Your task to perform on an android device: Google the capital of Ecuador Image 0: 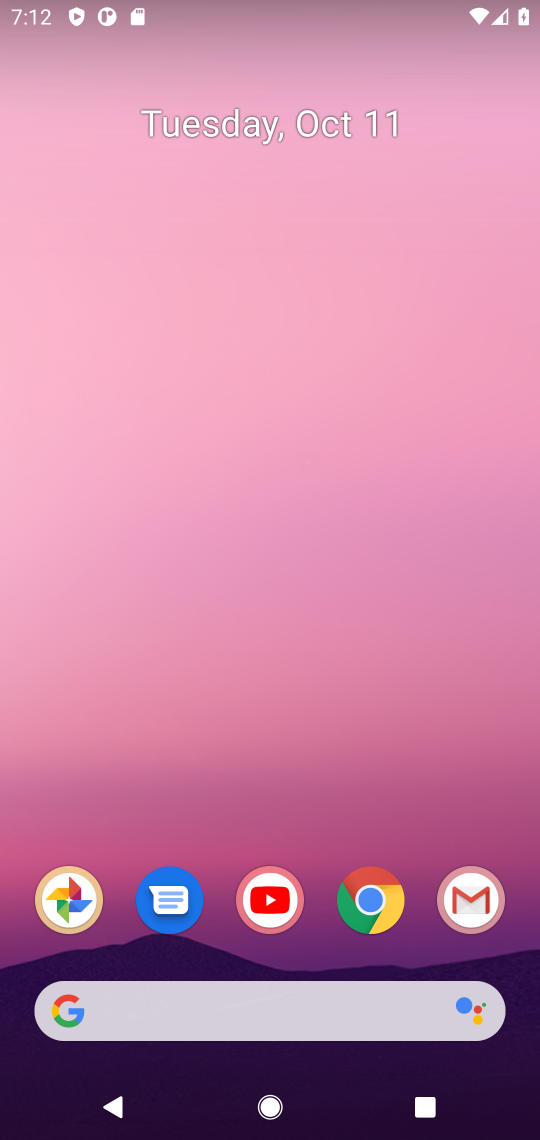
Step 0: click (378, 890)
Your task to perform on an android device: Google the capital of Ecuador Image 1: 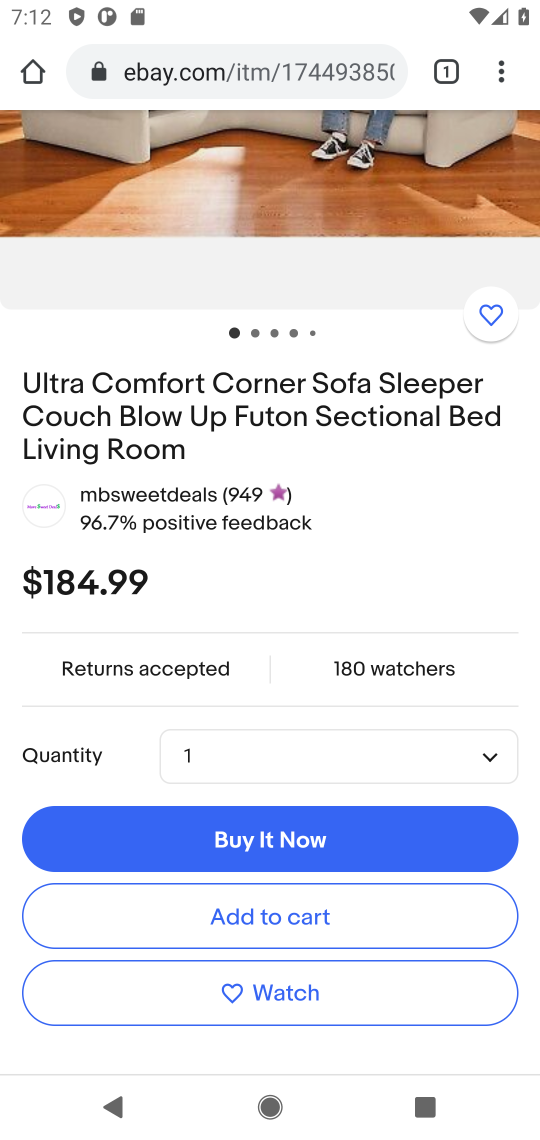
Step 1: click (274, 75)
Your task to perform on an android device: Google the capital of Ecuador Image 2: 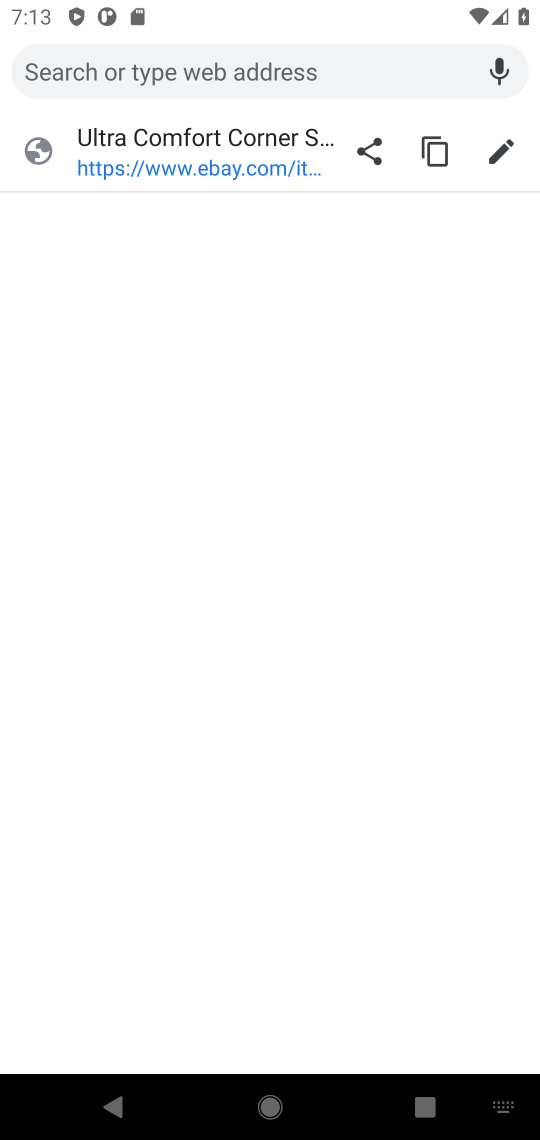
Step 2: type "capital of ecuador"
Your task to perform on an android device: Google the capital of Ecuador Image 3: 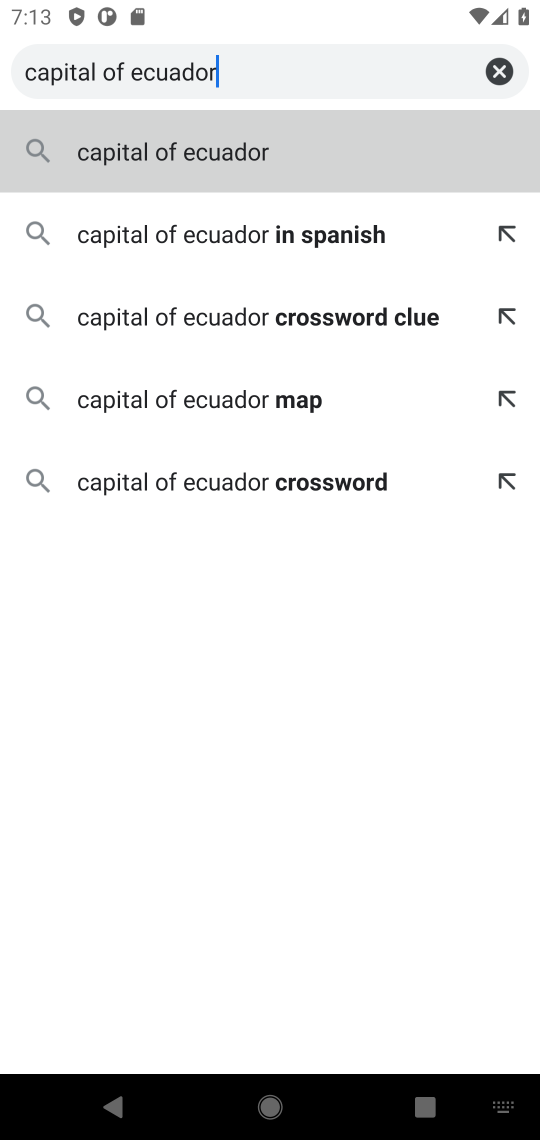
Step 3: click (270, 162)
Your task to perform on an android device: Google the capital of Ecuador Image 4: 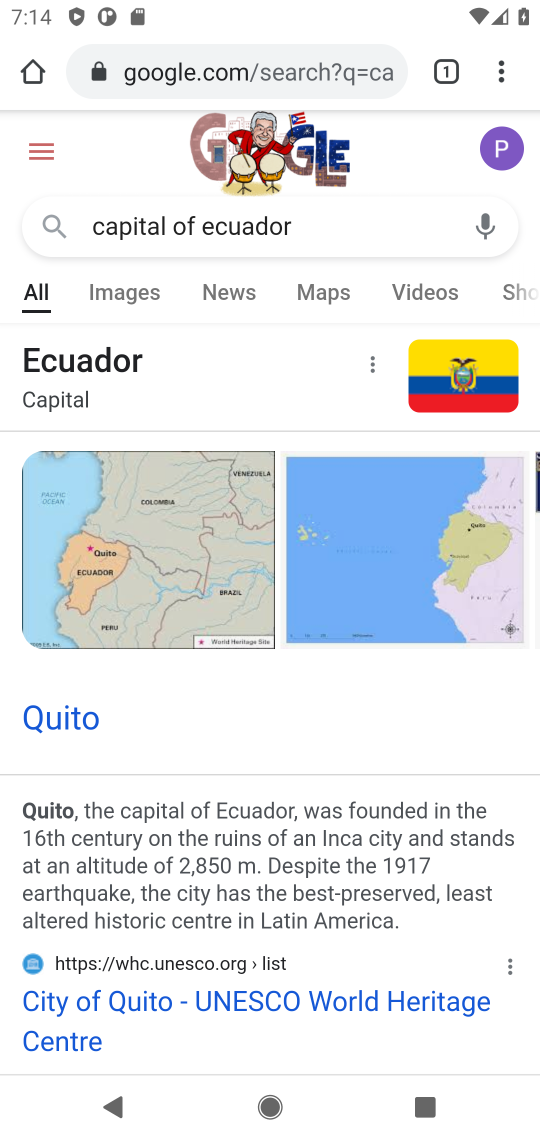
Step 4: task complete